Your task to perform on an android device: Open location settings Image 0: 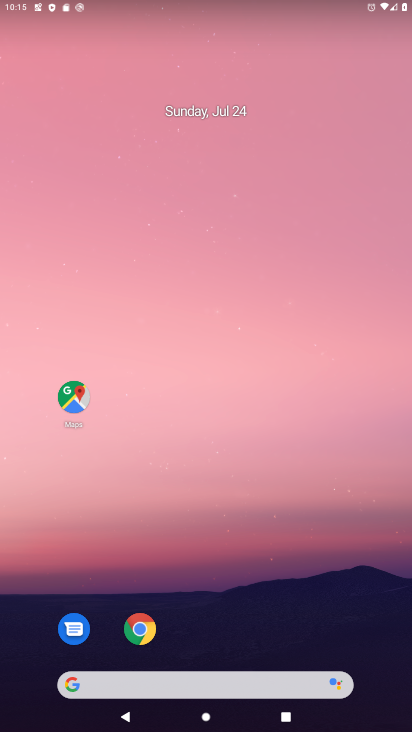
Step 0: drag from (246, 488) to (326, 49)
Your task to perform on an android device: Open location settings Image 1: 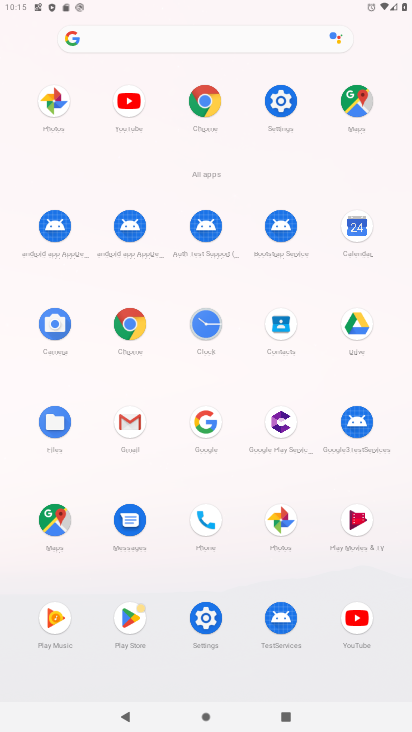
Step 1: click (197, 609)
Your task to perform on an android device: Open location settings Image 2: 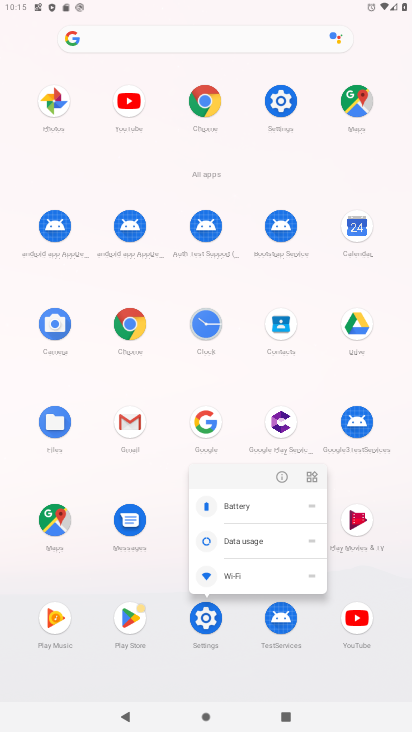
Step 2: click (271, 476)
Your task to perform on an android device: Open location settings Image 3: 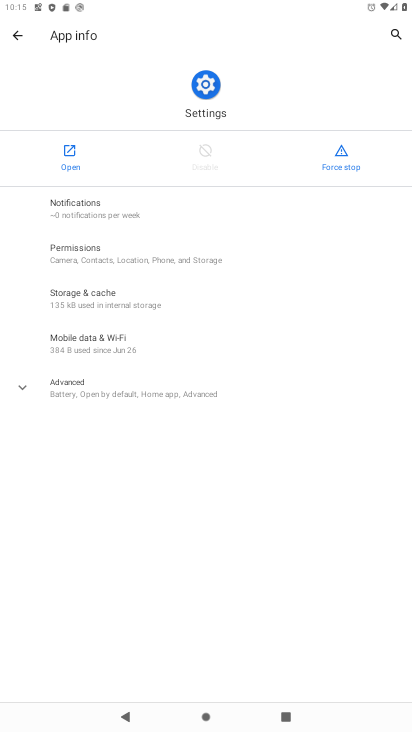
Step 3: click (74, 167)
Your task to perform on an android device: Open location settings Image 4: 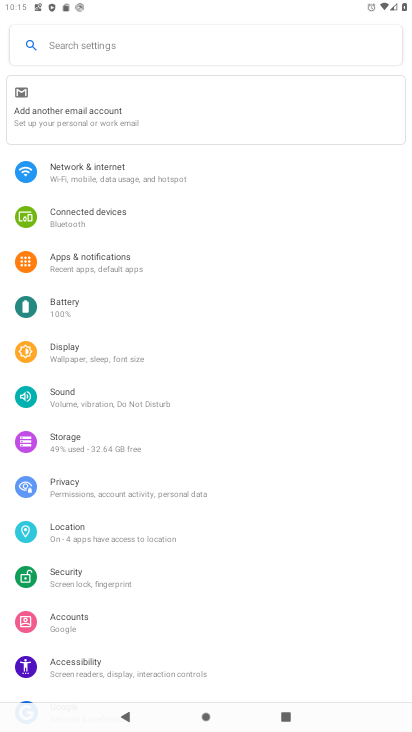
Step 4: click (77, 533)
Your task to perform on an android device: Open location settings Image 5: 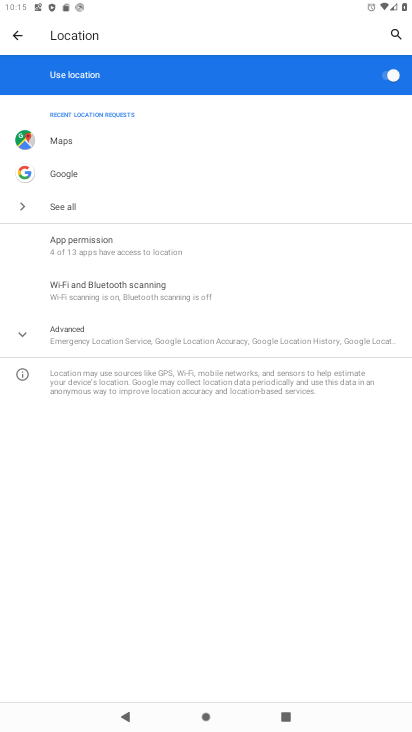
Step 5: task complete